Your task to perform on an android device: toggle show notifications on the lock screen Image 0: 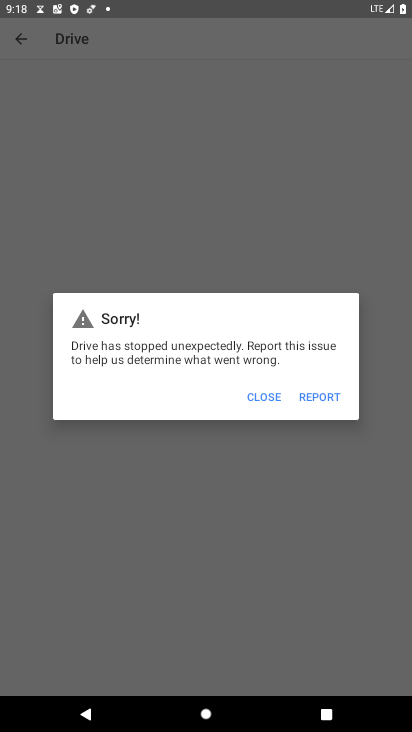
Step 0: press home button
Your task to perform on an android device: toggle show notifications on the lock screen Image 1: 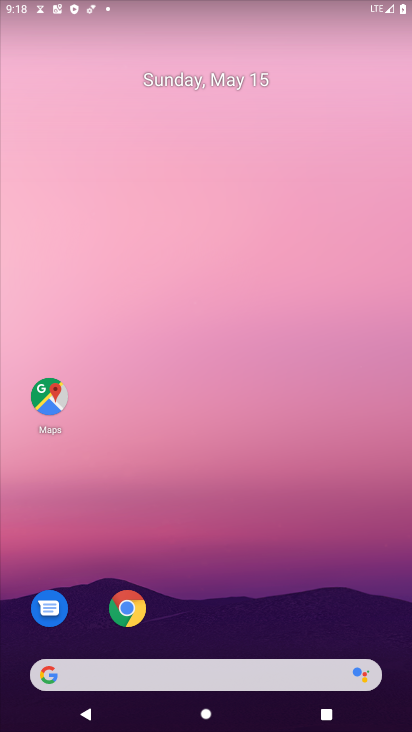
Step 1: click (212, 374)
Your task to perform on an android device: toggle show notifications on the lock screen Image 2: 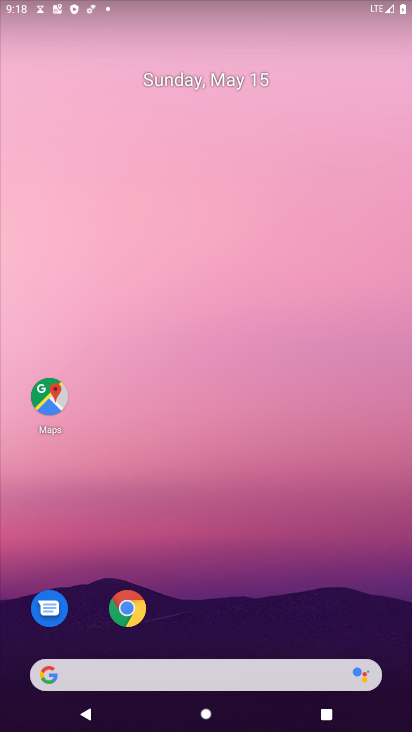
Step 2: drag from (247, 574) to (184, 2)
Your task to perform on an android device: toggle show notifications on the lock screen Image 3: 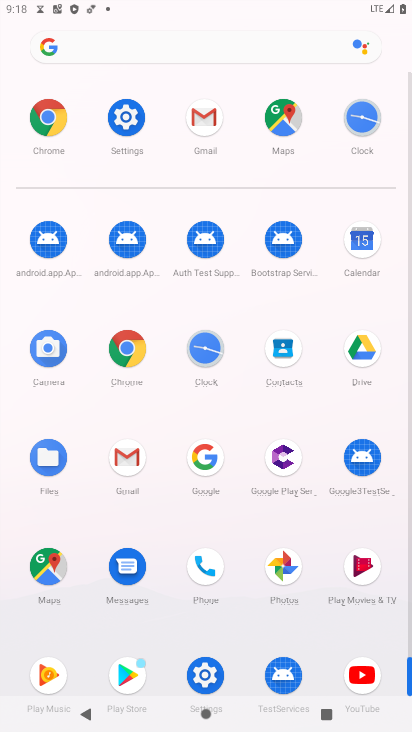
Step 3: click (151, 130)
Your task to perform on an android device: toggle show notifications on the lock screen Image 4: 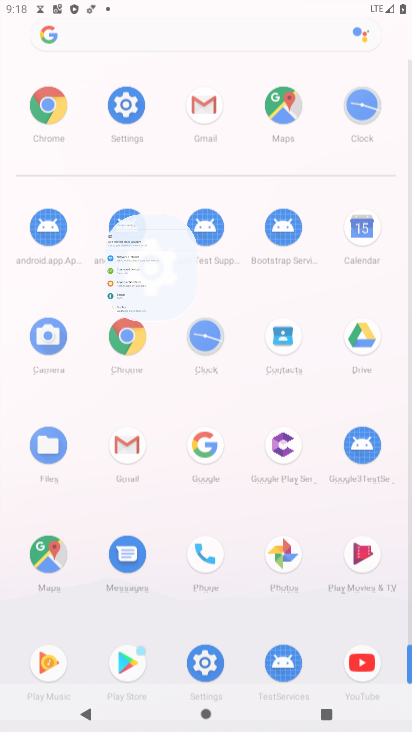
Step 4: click (143, 121)
Your task to perform on an android device: toggle show notifications on the lock screen Image 5: 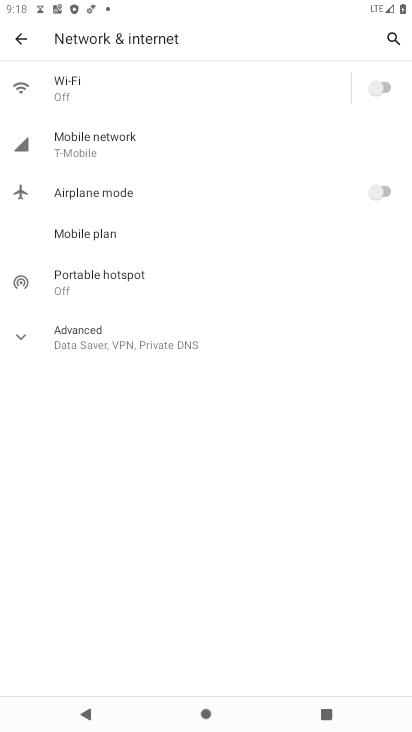
Step 5: click (32, 42)
Your task to perform on an android device: toggle show notifications on the lock screen Image 6: 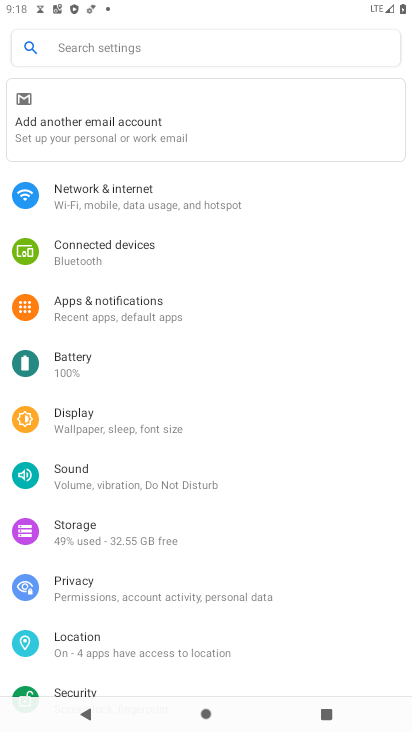
Step 6: drag from (81, 118) to (138, 496)
Your task to perform on an android device: toggle show notifications on the lock screen Image 7: 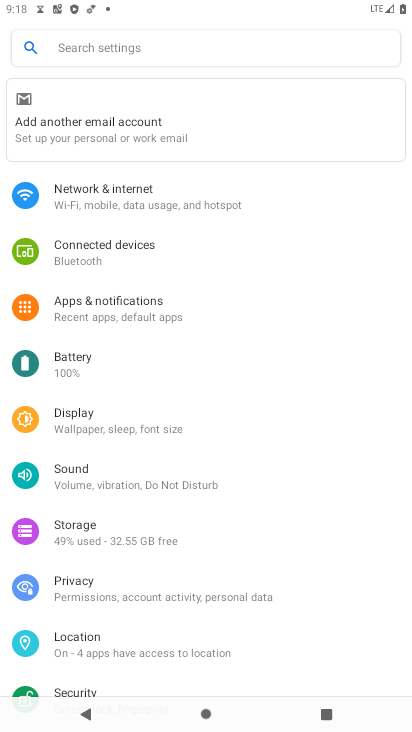
Step 7: click (99, 317)
Your task to perform on an android device: toggle show notifications on the lock screen Image 8: 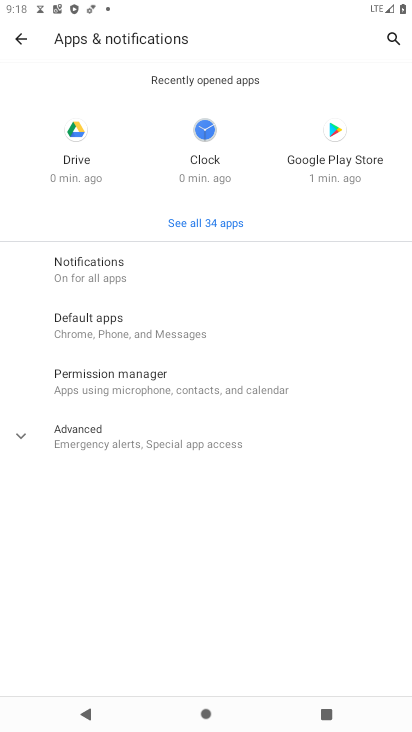
Step 8: click (96, 274)
Your task to perform on an android device: toggle show notifications on the lock screen Image 9: 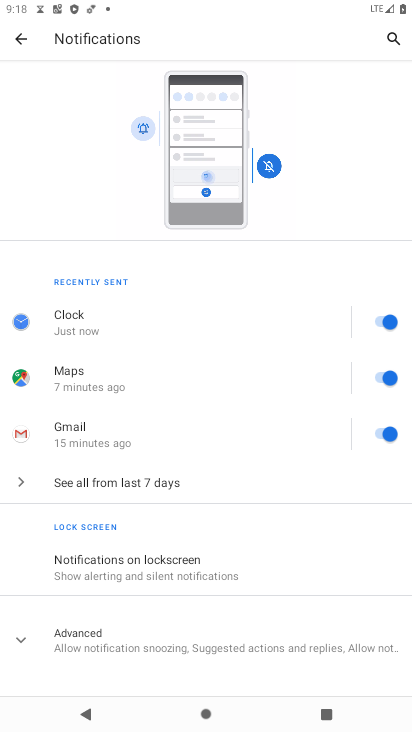
Step 9: drag from (163, 642) to (151, 335)
Your task to perform on an android device: toggle show notifications on the lock screen Image 10: 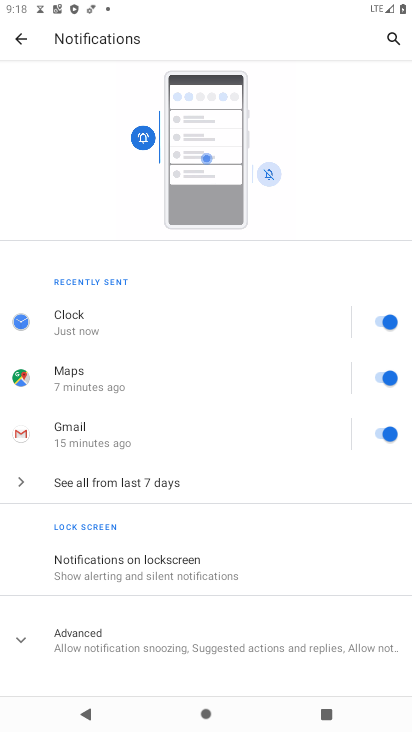
Step 10: click (219, 563)
Your task to perform on an android device: toggle show notifications on the lock screen Image 11: 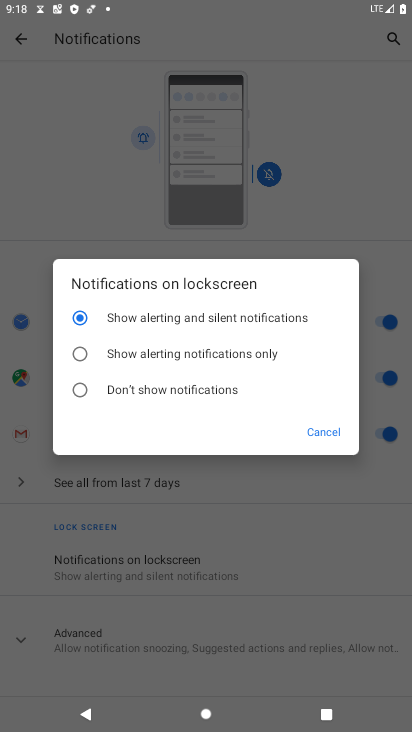
Step 11: click (78, 351)
Your task to perform on an android device: toggle show notifications on the lock screen Image 12: 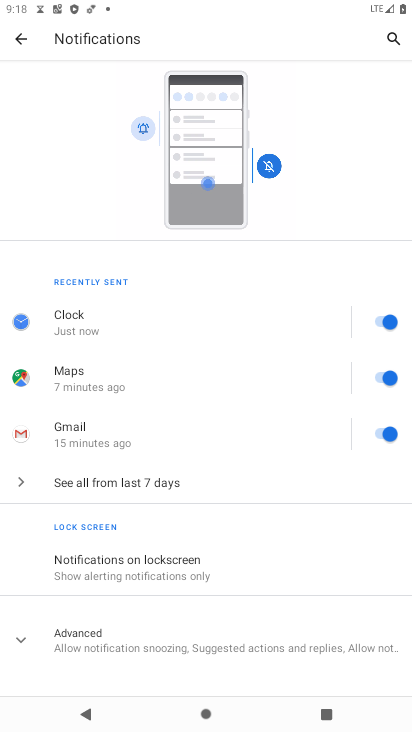
Step 12: task complete